Your task to perform on an android device: stop showing notifications on the lock screen Image 0: 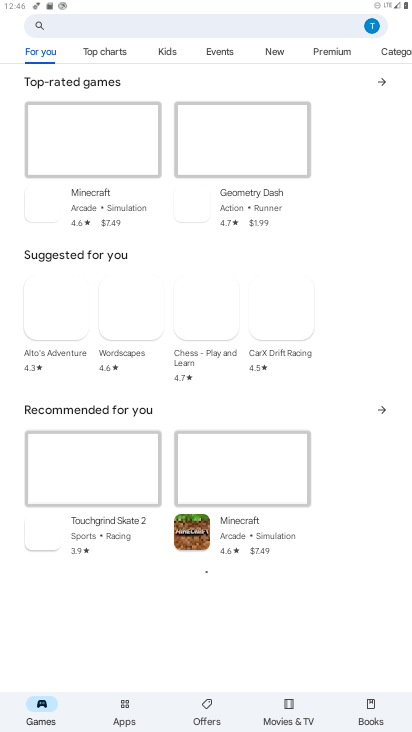
Step 0: press home button
Your task to perform on an android device: stop showing notifications on the lock screen Image 1: 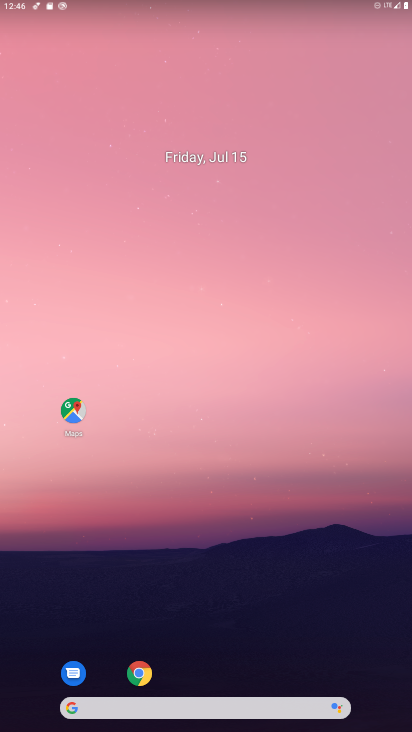
Step 1: drag from (373, 659) to (321, 30)
Your task to perform on an android device: stop showing notifications on the lock screen Image 2: 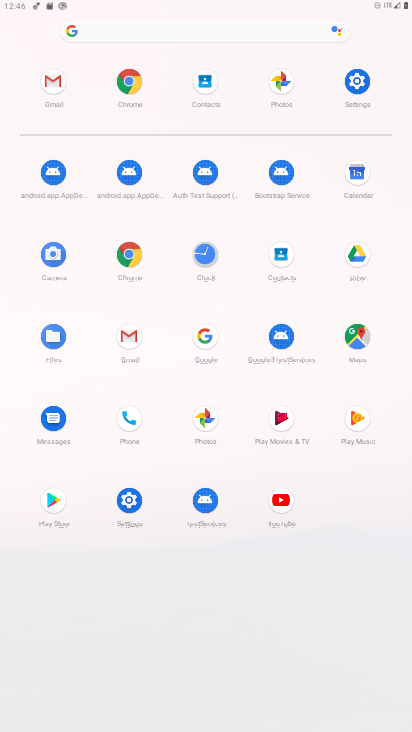
Step 2: click (353, 85)
Your task to perform on an android device: stop showing notifications on the lock screen Image 3: 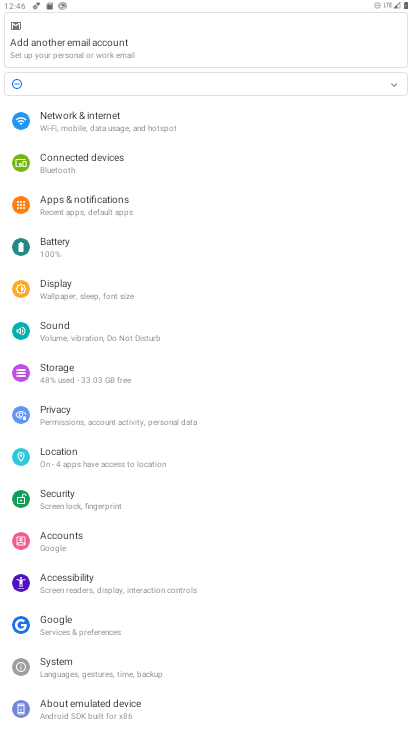
Step 3: click (73, 205)
Your task to perform on an android device: stop showing notifications on the lock screen Image 4: 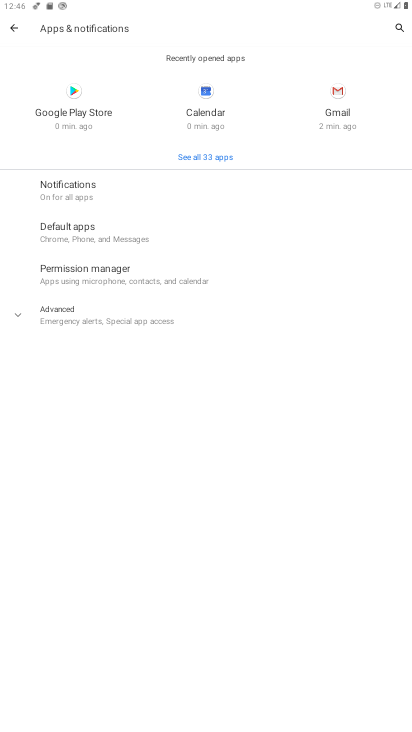
Step 4: click (78, 182)
Your task to perform on an android device: stop showing notifications on the lock screen Image 5: 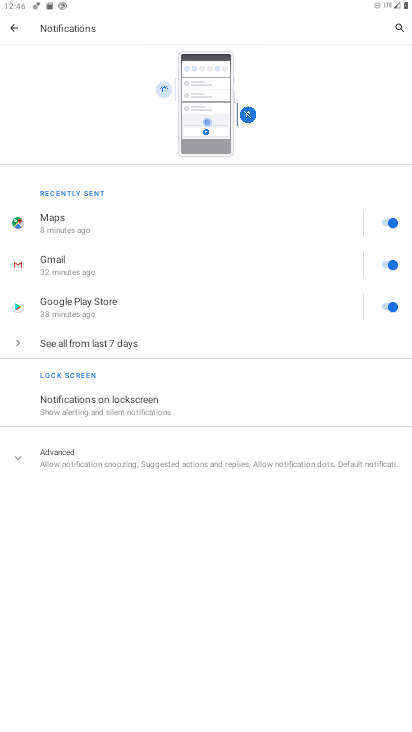
Step 5: click (88, 399)
Your task to perform on an android device: stop showing notifications on the lock screen Image 6: 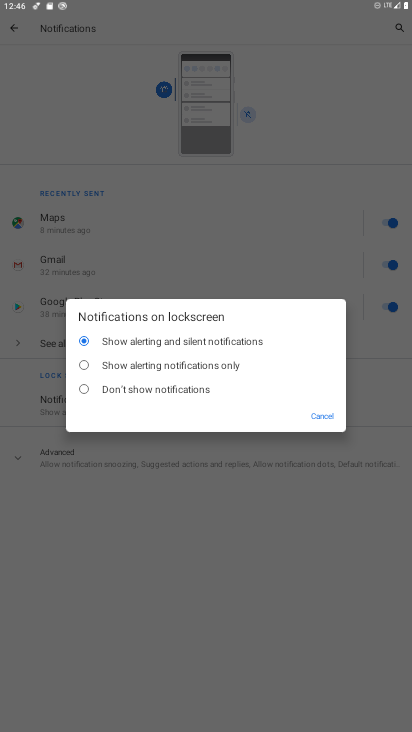
Step 6: click (89, 393)
Your task to perform on an android device: stop showing notifications on the lock screen Image 7: 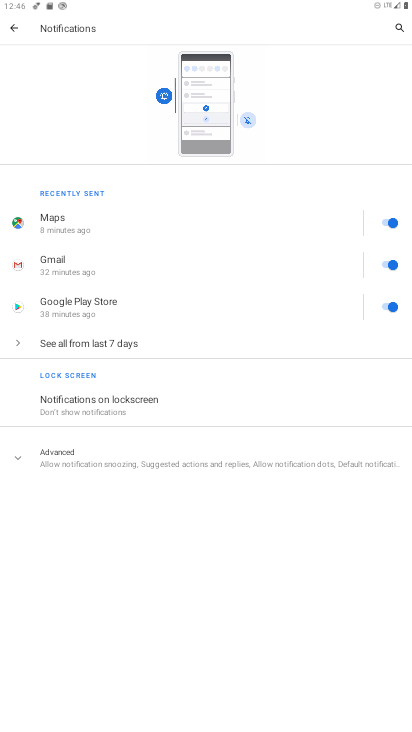
Step 7: task complete